Your task to perform on an android device: empty trash in the gmail app Image 0: 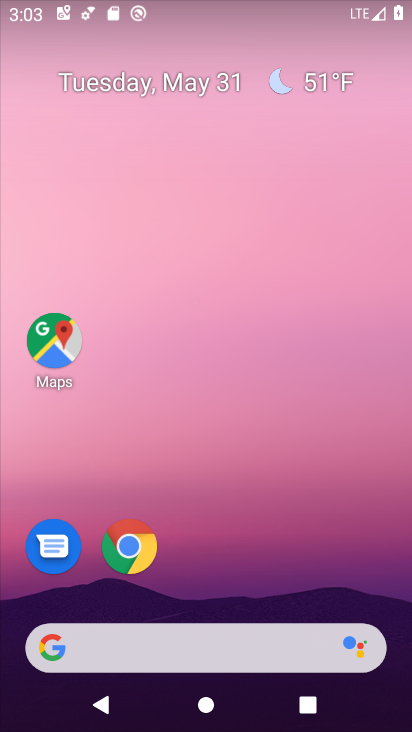
Step 0: drag from (260, 531) to (217, 59)
Your task to perform on an android device: empty trash in the gmail app Image 1: 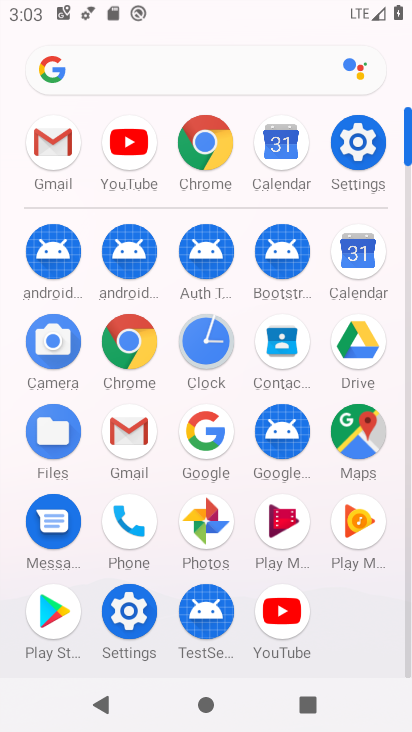
Step 1: click (58, 150)
Your task to perform on an android device: empty trash in the gmail app Image 2: 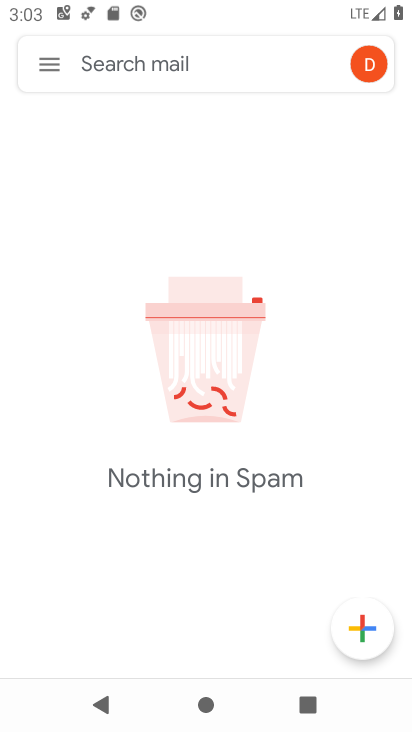
Step 2: click (51, 70)
Your task to perform on an android device: empty trash in the gmail app Image 3: 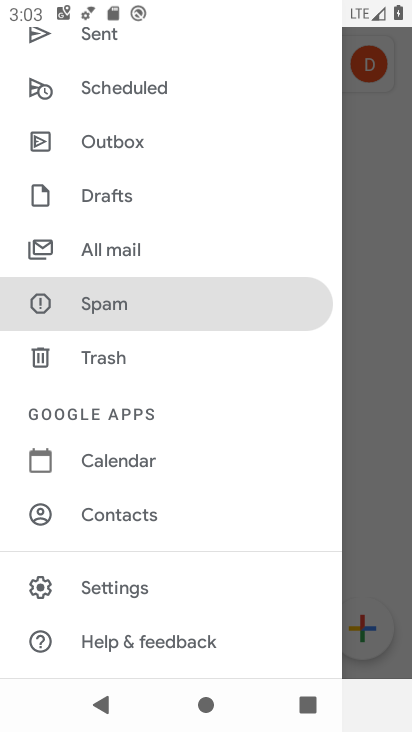
Step 3: click (128, 358)
Your task to perform on an android device: empty trash in the gmail app Image 4: 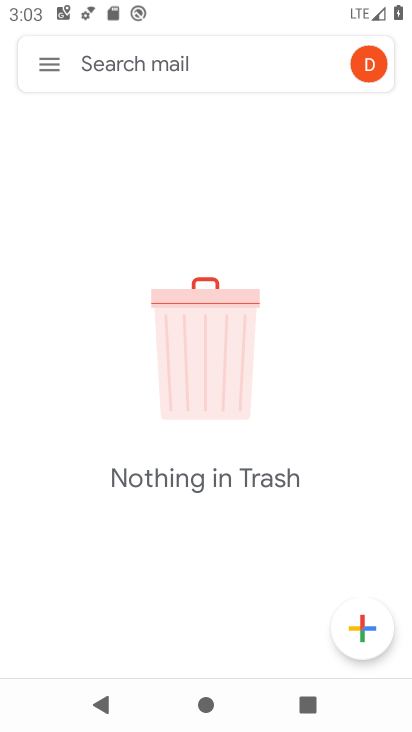
Step 4: task complete